Your task to perform on an android device: change the clock display to show seconds Image 0: 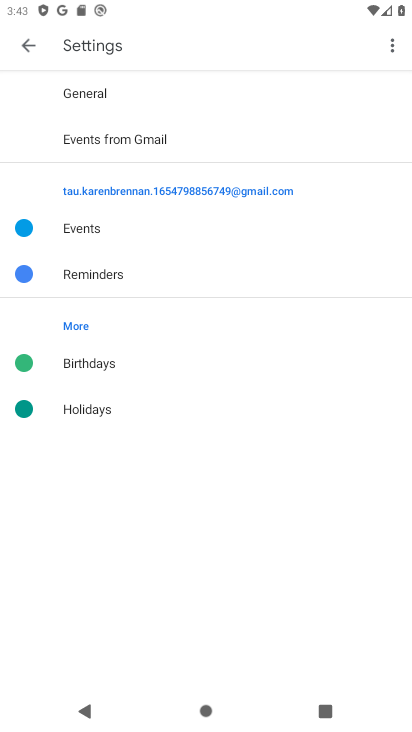
Step 0: press home button
Your task to perform on an android device: change the clock display to show seconds Image 1: 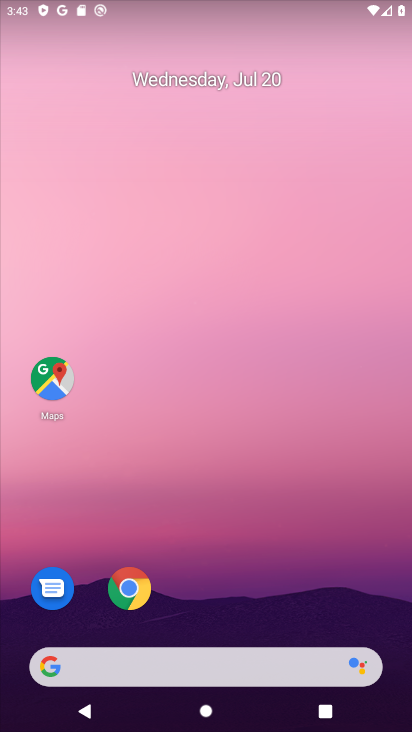
Step 1: drag from (184, 638) to (272, 183)
Your task to perform on an android device: change the clock display to show seconds Image 2: 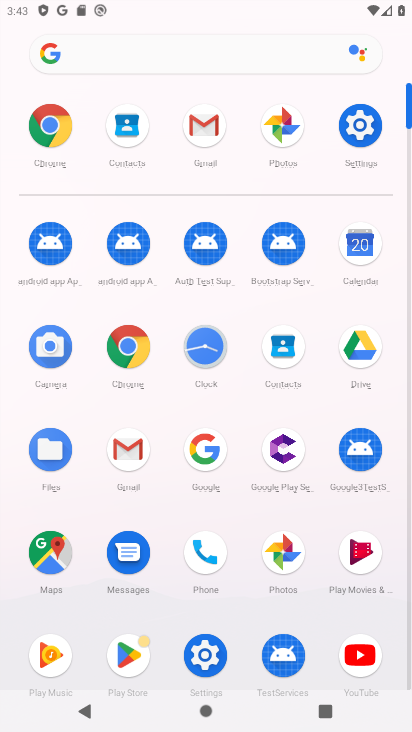
Step 2: drag from (184, 625) to (200, 366)
Your task to perform on an android device: change the clock display to show seconds Image 3: 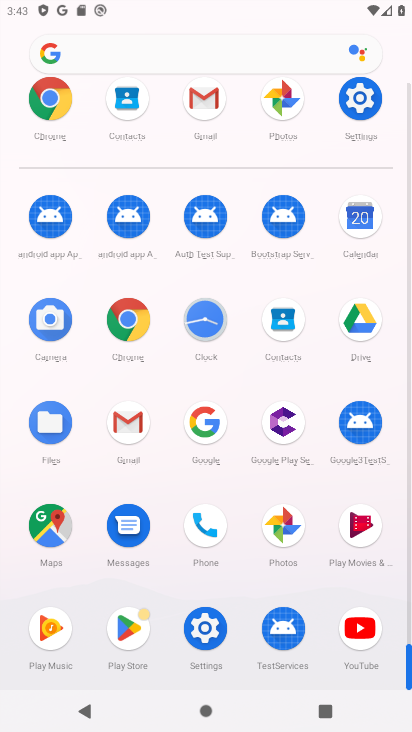
Step 3: click (201, 315)
Your task to perform on an android device: change the clock display to show seconds Image 4: 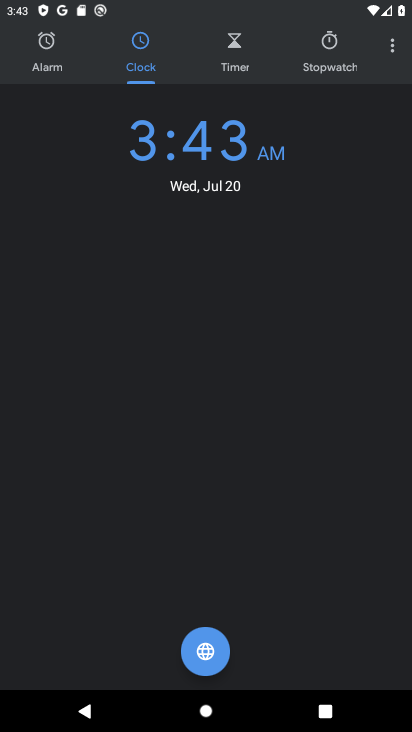
Step 4: click (392, 67)
Your task to perform on an android device: change the clock display to show seconds Image 5: 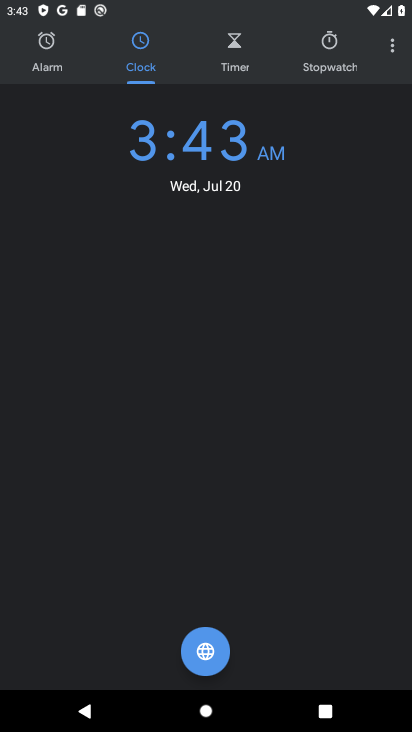
Step 5: click (398, 61)
Your task to perform on an android device: change the clock display to show seconds Image 6: 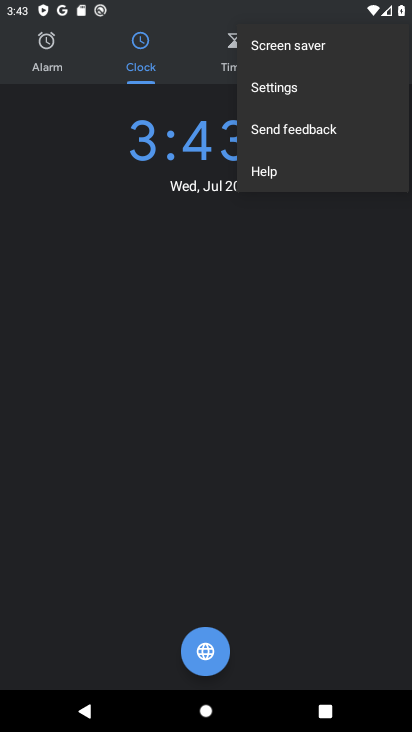
Step 6: click (304, 95)
Your task to perform on an android device: change the clock display to show seconds Image 7: 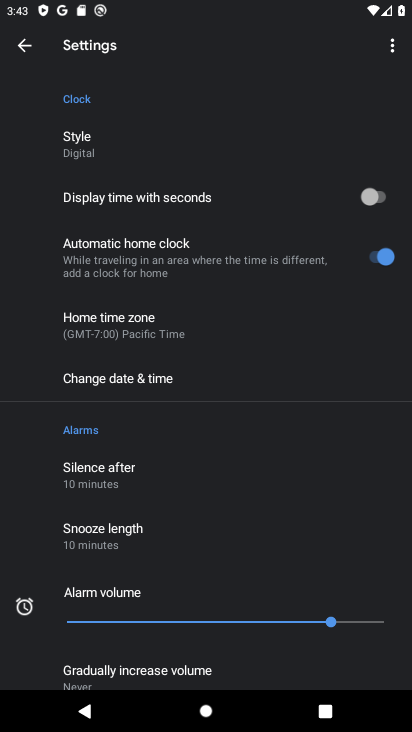
Step 7: click (381, 212)
Your task to perform on an android device: change the clock display to show seconds Image 8: 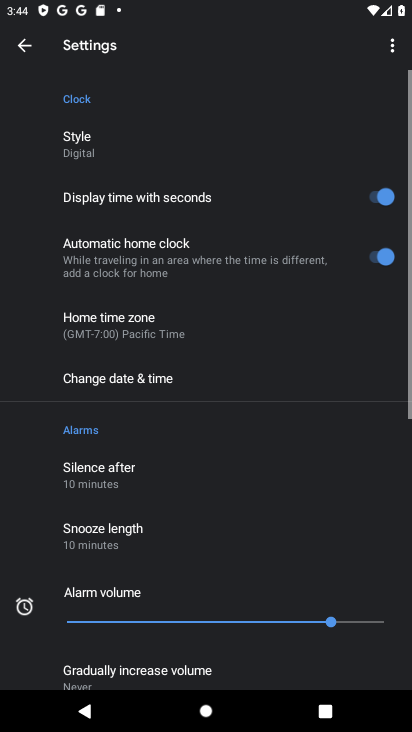
Step 8: task complete